Your task to perform on an android device: see tabs open on other devices in the chrome app Image 0: 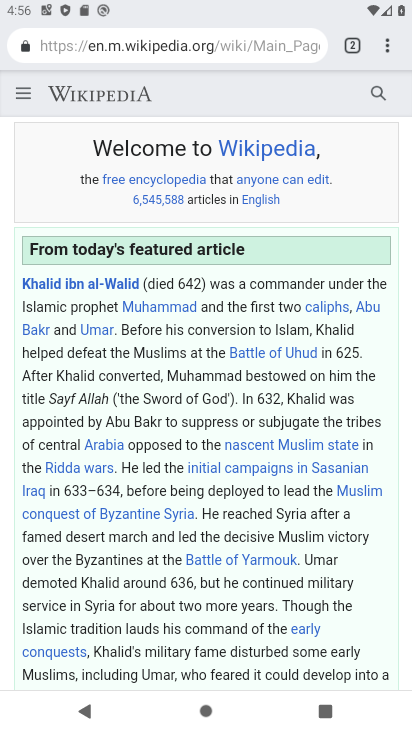
Step 0: press home button
Your task to perform on an android device: see tabs open on other devices in the chrome app Image 1: 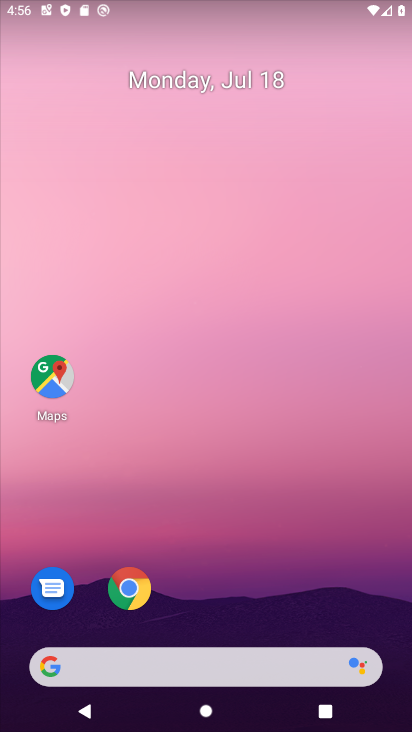
Step 1: drag from (335, 624) to (220, 49)
Your task to perform on an android device: see tabs open on other devices in the chrome app Image 2: 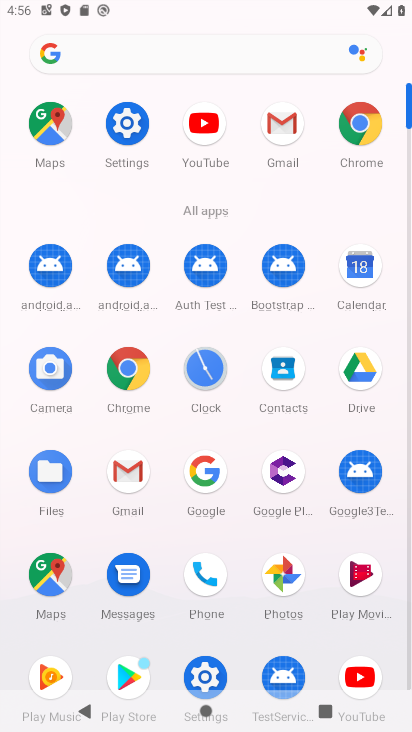
Step 2: click (350, 136)
Your task to perform on an android device: see tabs open on other devices in the chrome app Image 3: 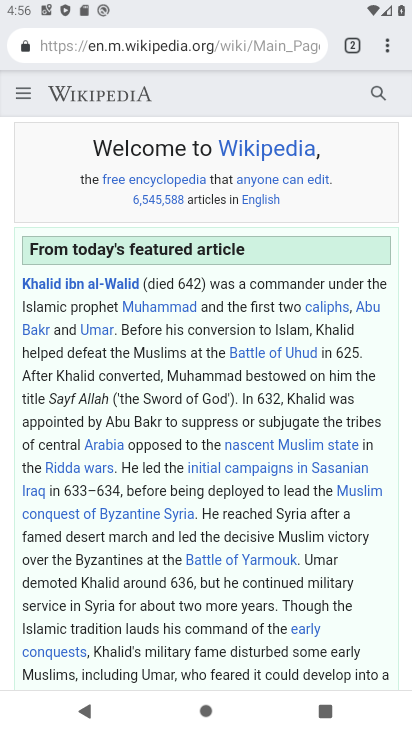
Step 3: click (380, 44)
Your task to perform on an android device: see tabs open on other devices in the chrome app Image 4: 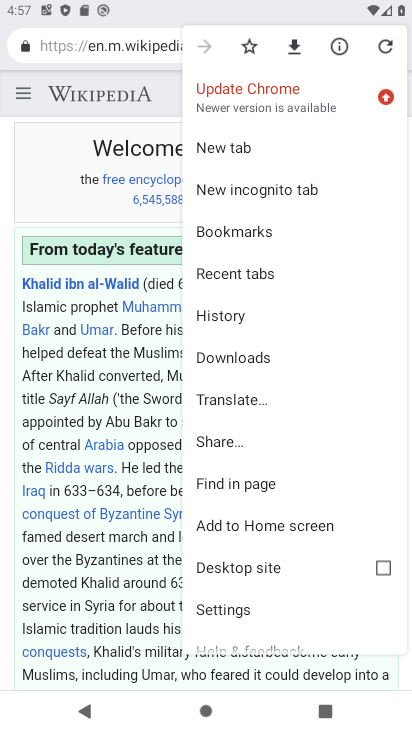
Step 4: click (288, 275)
Your task to perform on an android device: see tabs open on other devices in the chrome app Image 5: 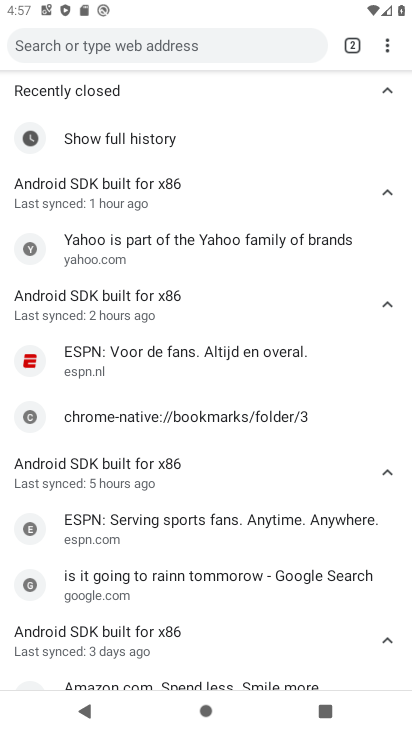
Step 5: task complete